Your task to perform on an android device: Open calendar and show me the fourth week of next month Image 0: 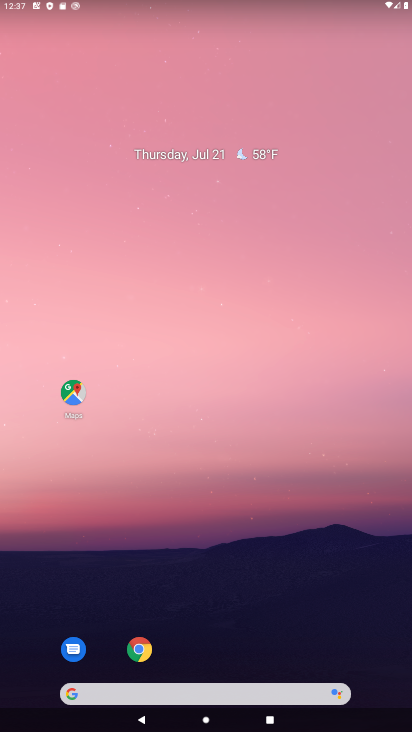
Step 0: drag from (376, 662) to (363, 97)
Your task to perform on an android device: Open calendar and show me the fourth week of next month Image 1: 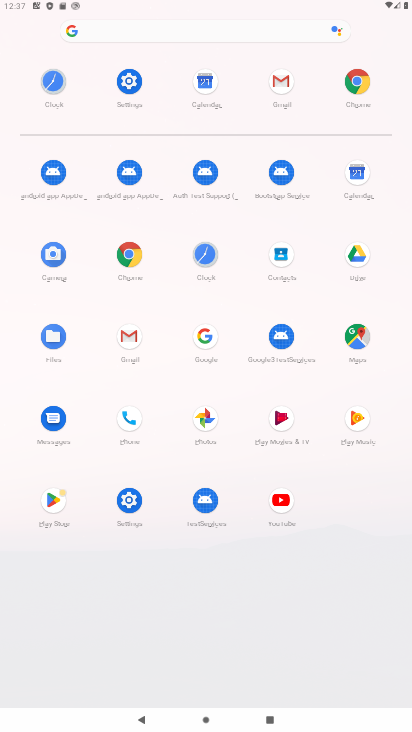
Step 1: click (357, 172)
Your task to perform on an android device: Open calendar and show me the fourth week of next month Image 2: 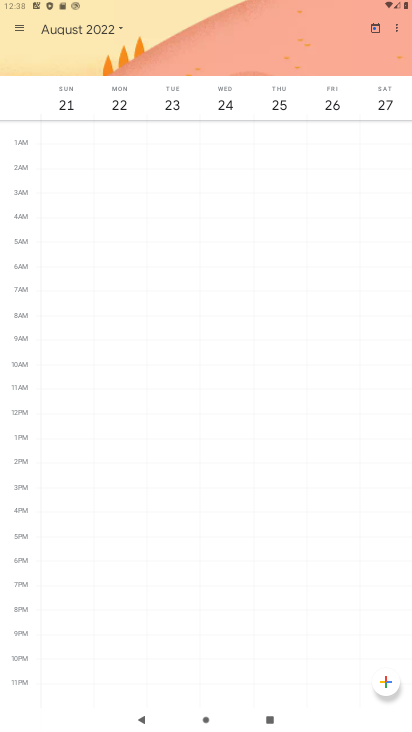
Step 2: click (119, 26)
Your task to perform on an android device: Open calendar and show me the fourth week of next month Image 3: 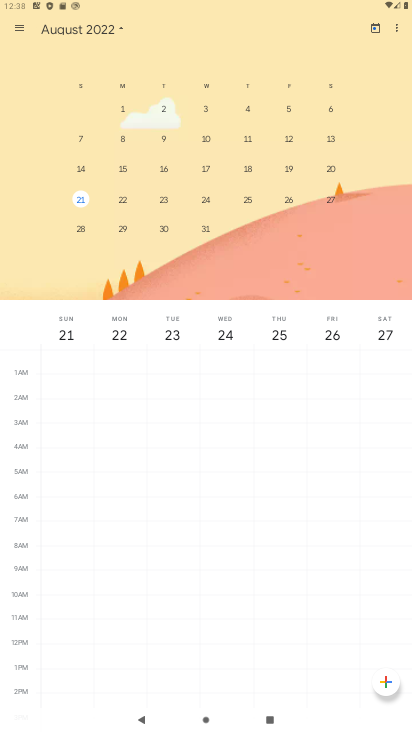
Step 3: click (79, 229)
Your task to perform on an android device: Open calendar and show me the fourth week of next month Image 4: 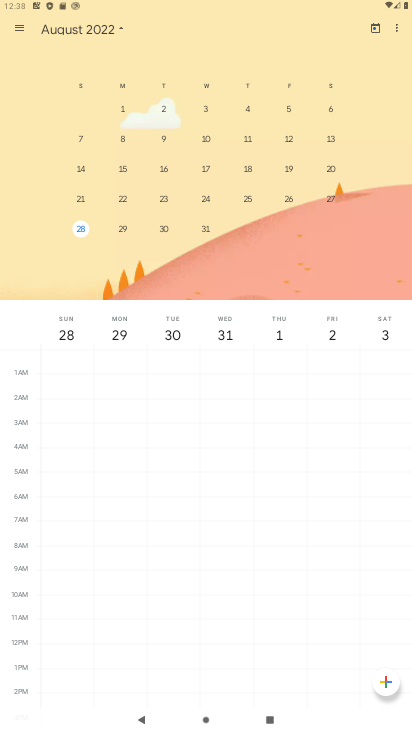
Step 4: task complete